Your task to perform on an android device: Show the shopping cart on target.com. Add panasonic triple a to the cart on target.com, then select checkout. Image 0: 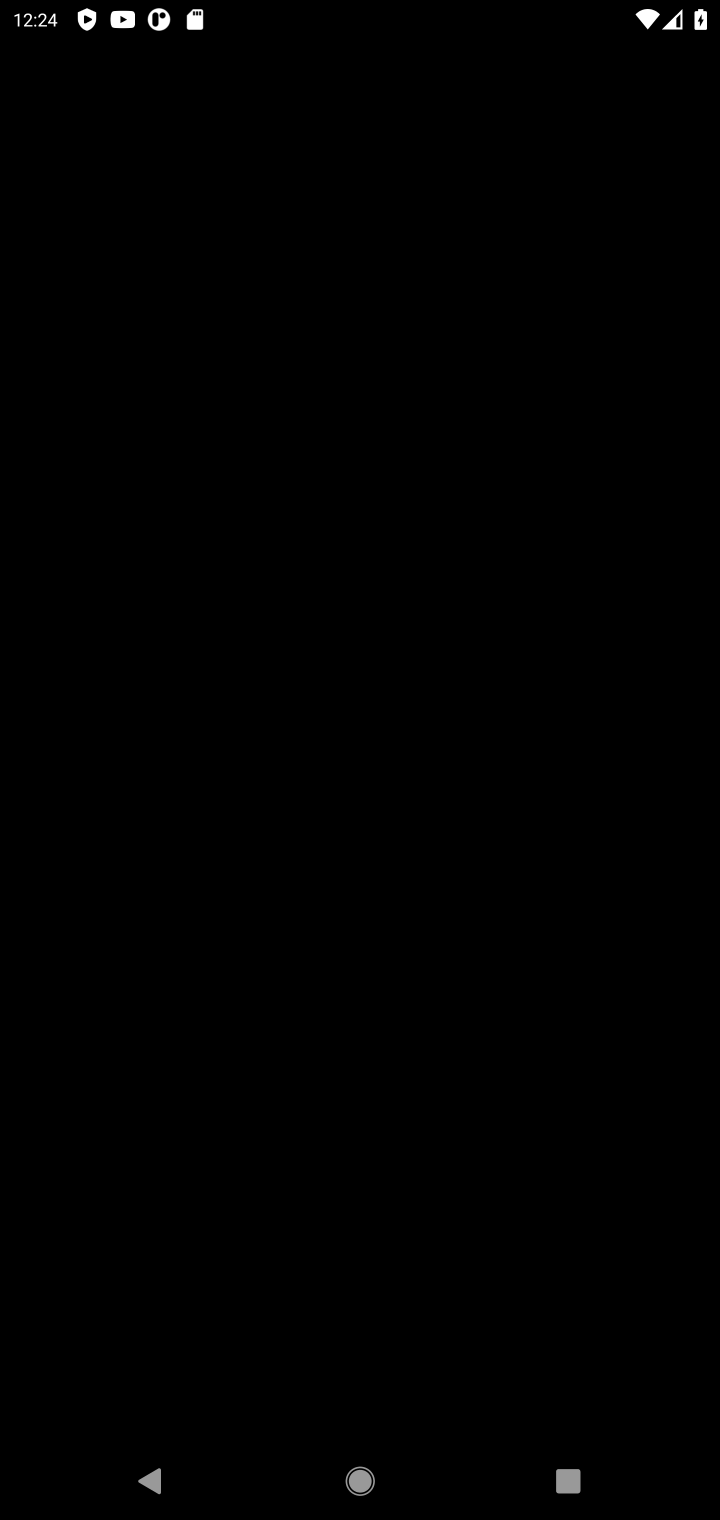
Step 0: press home button
Your task to perform on an android device: Show the shopping cart on target.com. Add panasonic triple a to the cart on target.com, then select checkout. Image 1: 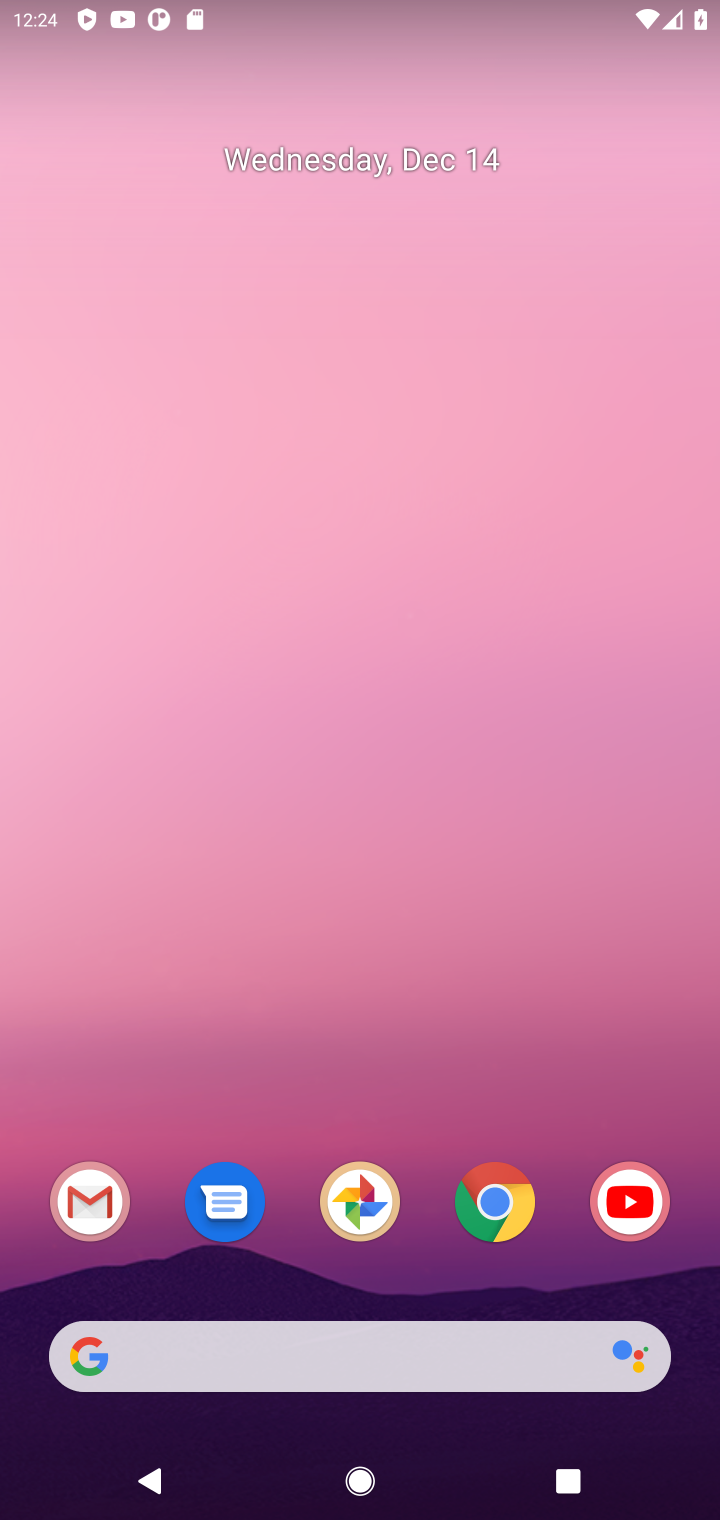
Step 1: click (482, 1202)
Your task to perform on an android device: Show the shopping cart on target.com. Add panasonic triple a to the cart on target.com, then select checkout. Image 2: 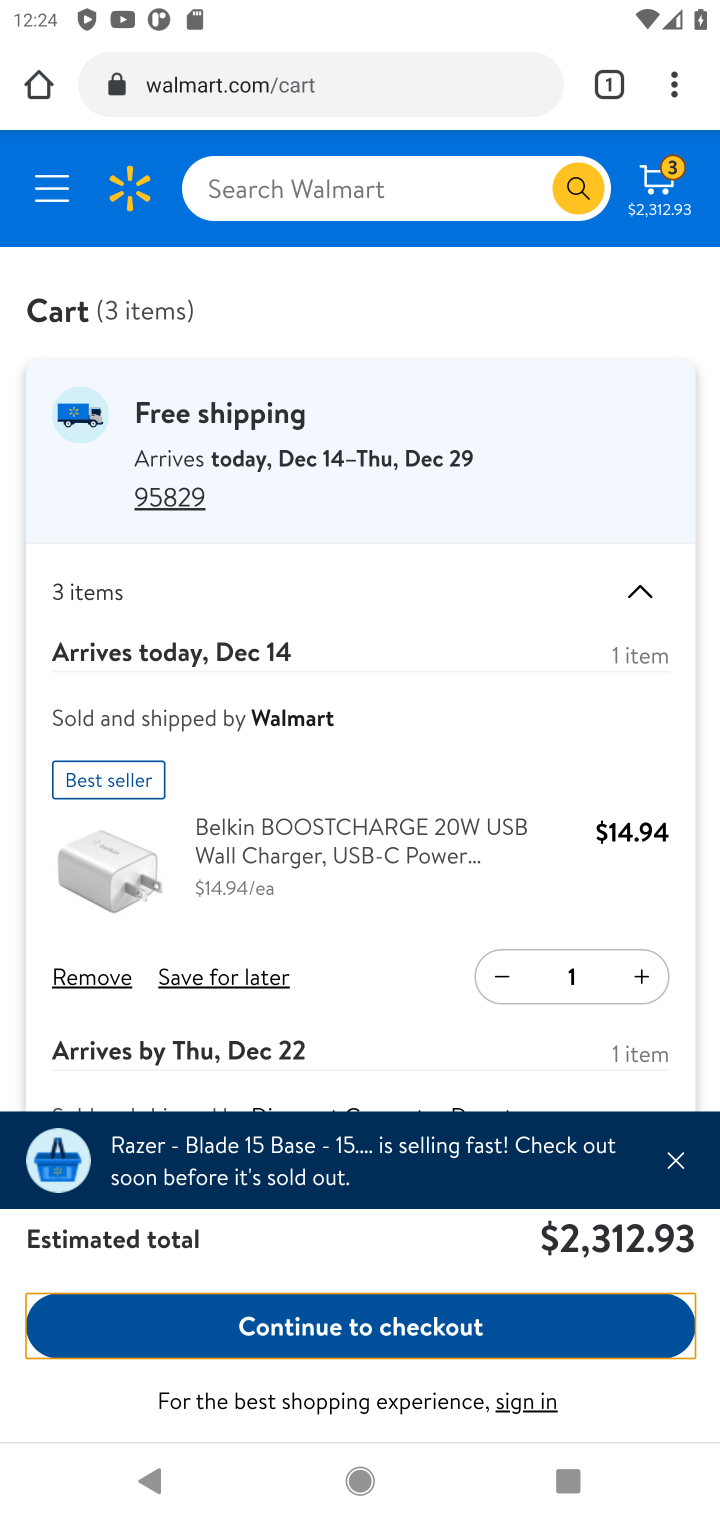
Step 2: click (327, 85)
Your task to perform on an android device: Show the shopping cart on target.com. Add panasonic triple a to the cart on target.com, then select checkout. Image 3: 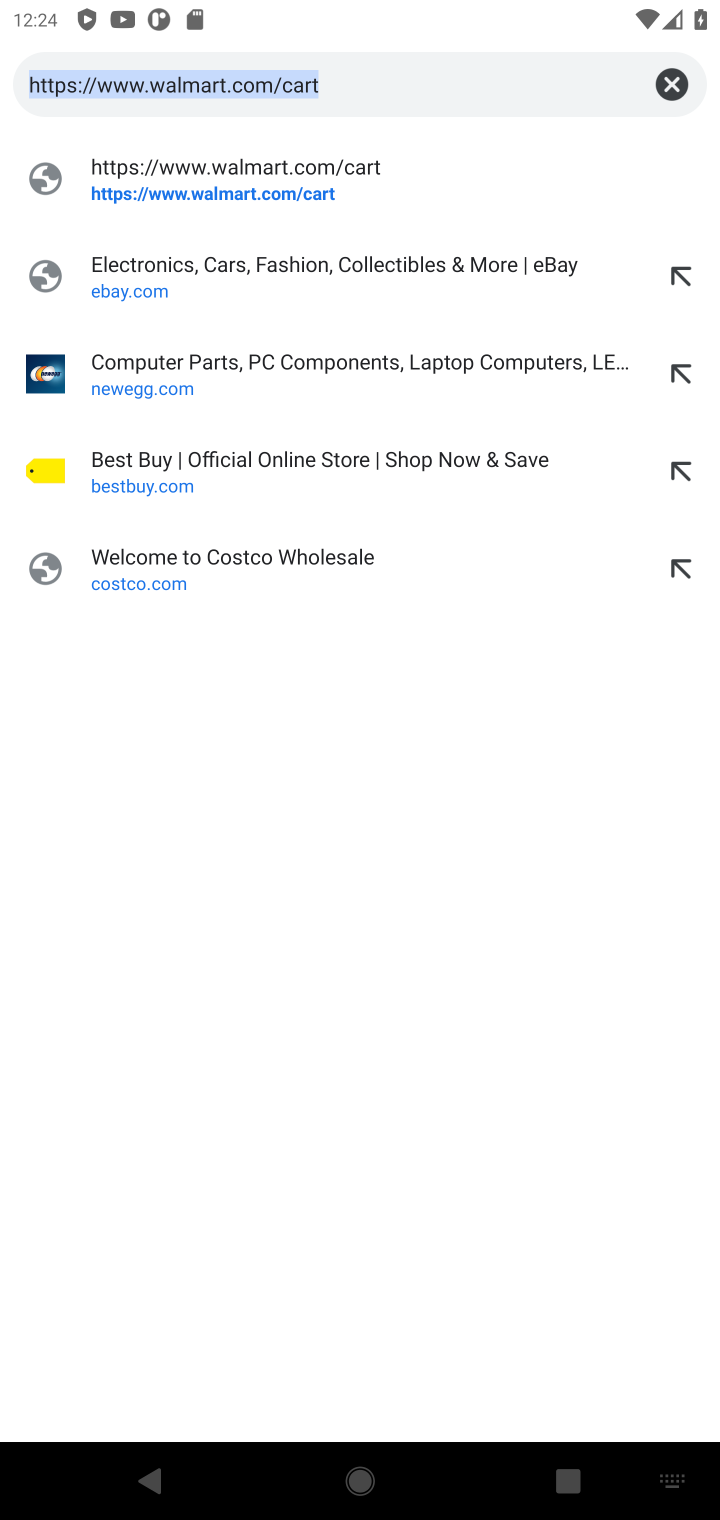
Step 3: type "target"
Your task to perform on an android device: Show the shopping cart on target.com. Add panasonic triple a to the cart on target.com, then select checkout. Image 4: 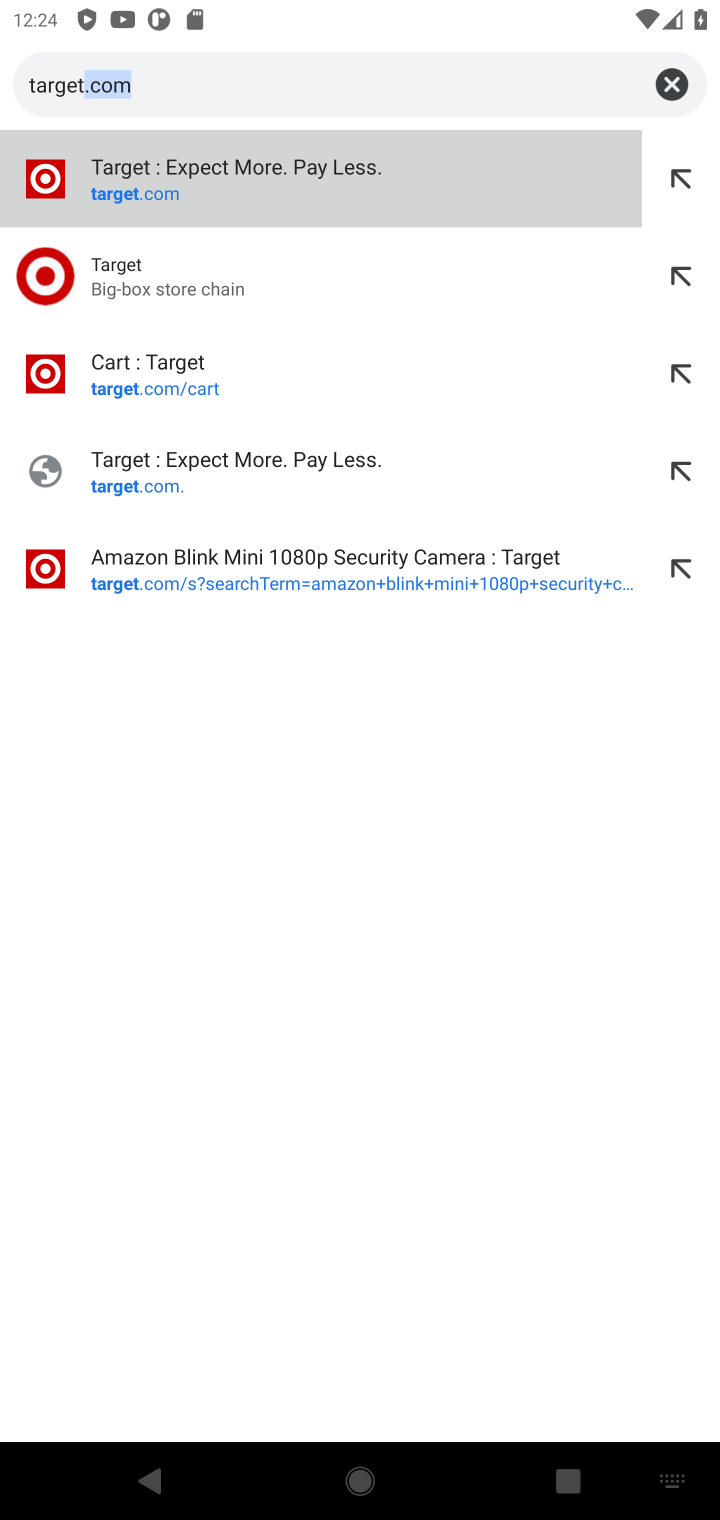
Step 4: click (246, 193)
Your task to perform on an android device: Show the shopping cart on target.com. Add panasonic triple a to the cart on target.com, then select checkout. Image 5: 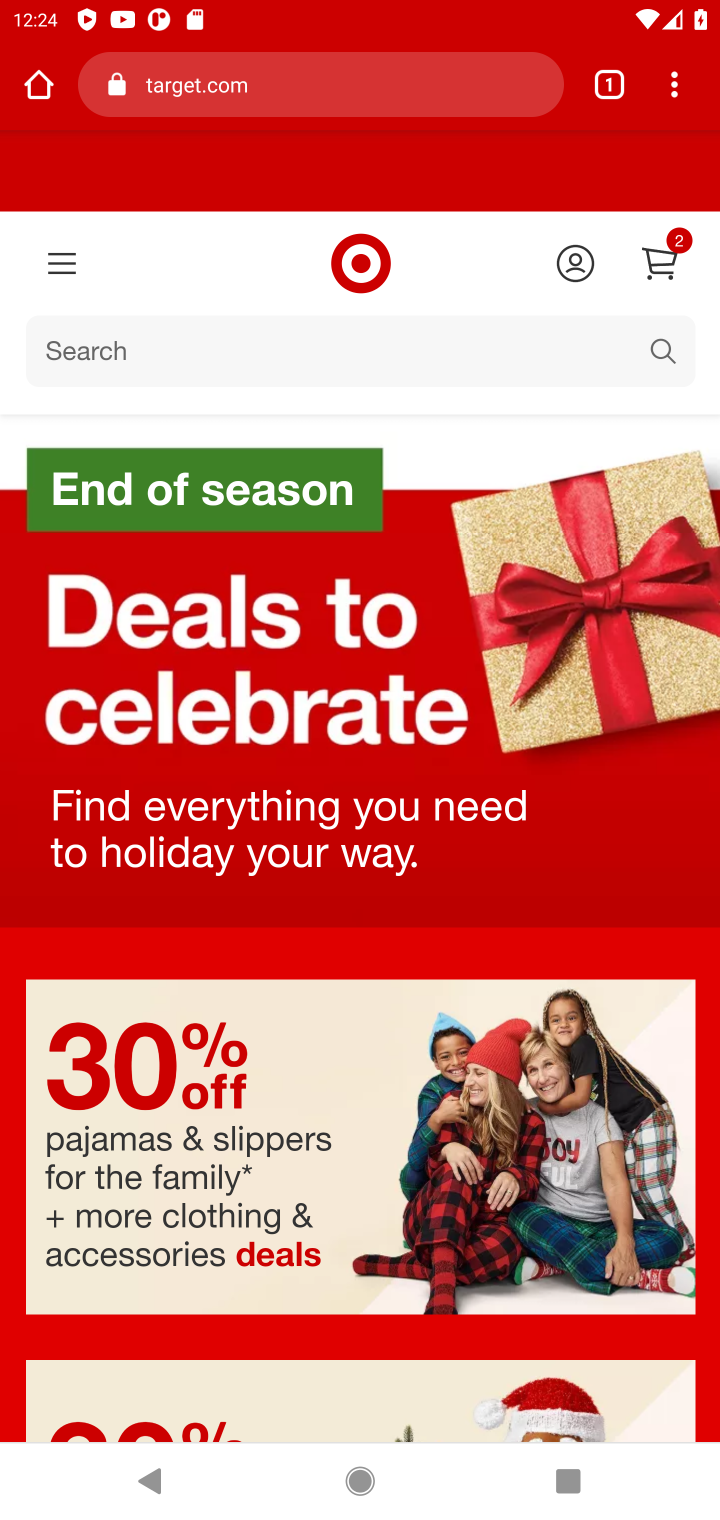
Step 5: click (237, 352)
Your task to perform on an android device: Show the shopping cart on target.com. Add panasonic triple a to the cart on target.com, then select checkout. Image 6: 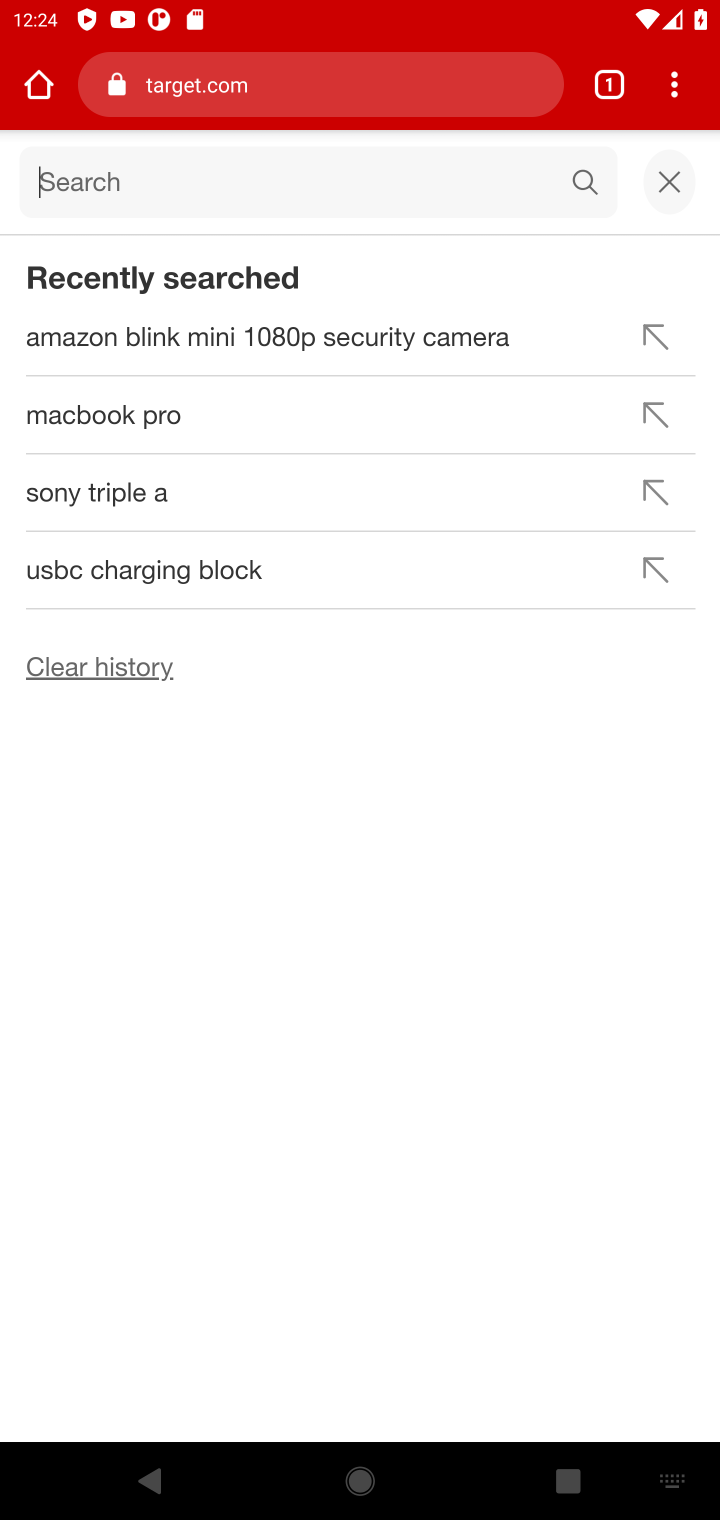
Step 6: type "panasonic triple a"
Your task to perform on an android device: Show the shopping cart on target.com. Add panasonic triple a to the cart on target.com, then select checkout. Image 7: 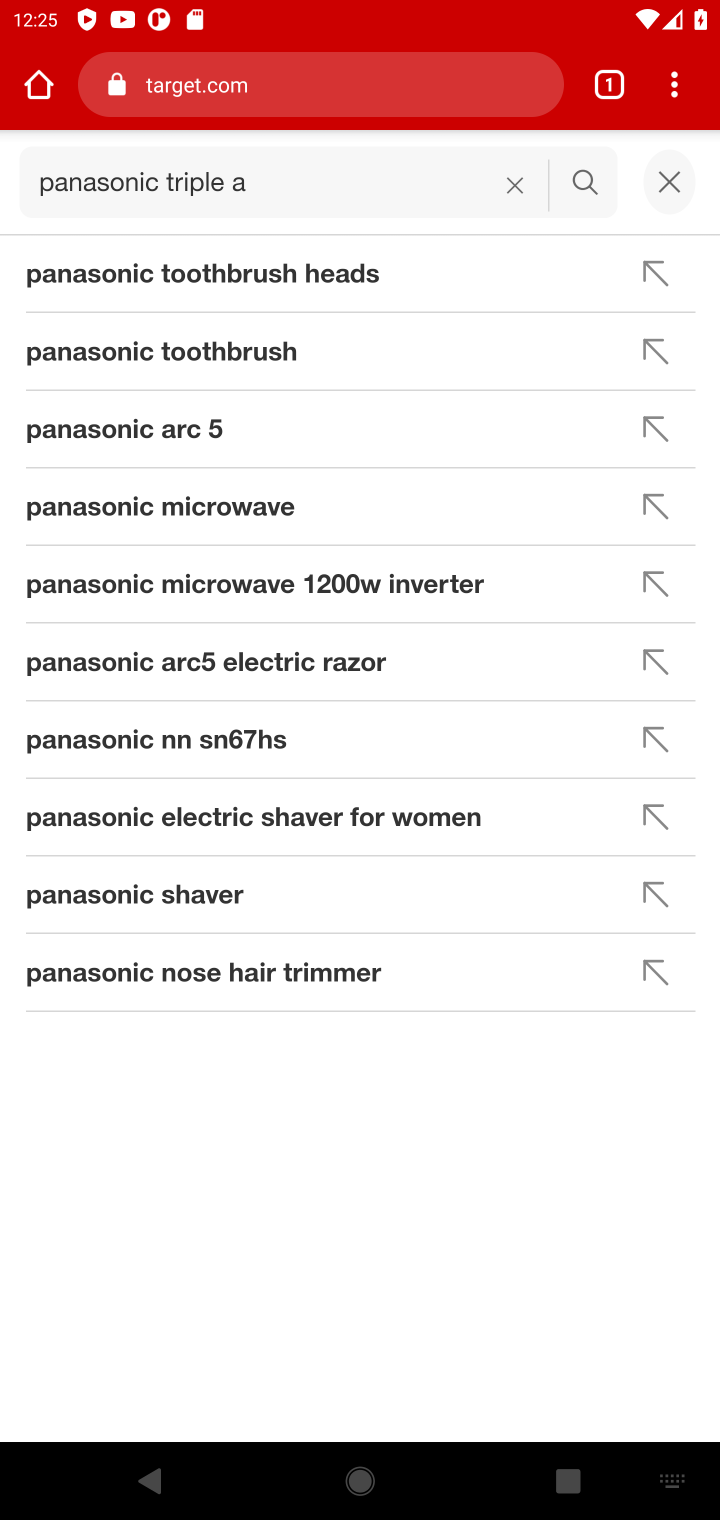
Step 7: click (583, 179)
Your task to perform on an android device: Show the shopping cart on target.com. Add panasonic triple a to the cart on target.com, then select checkout. Image 8: 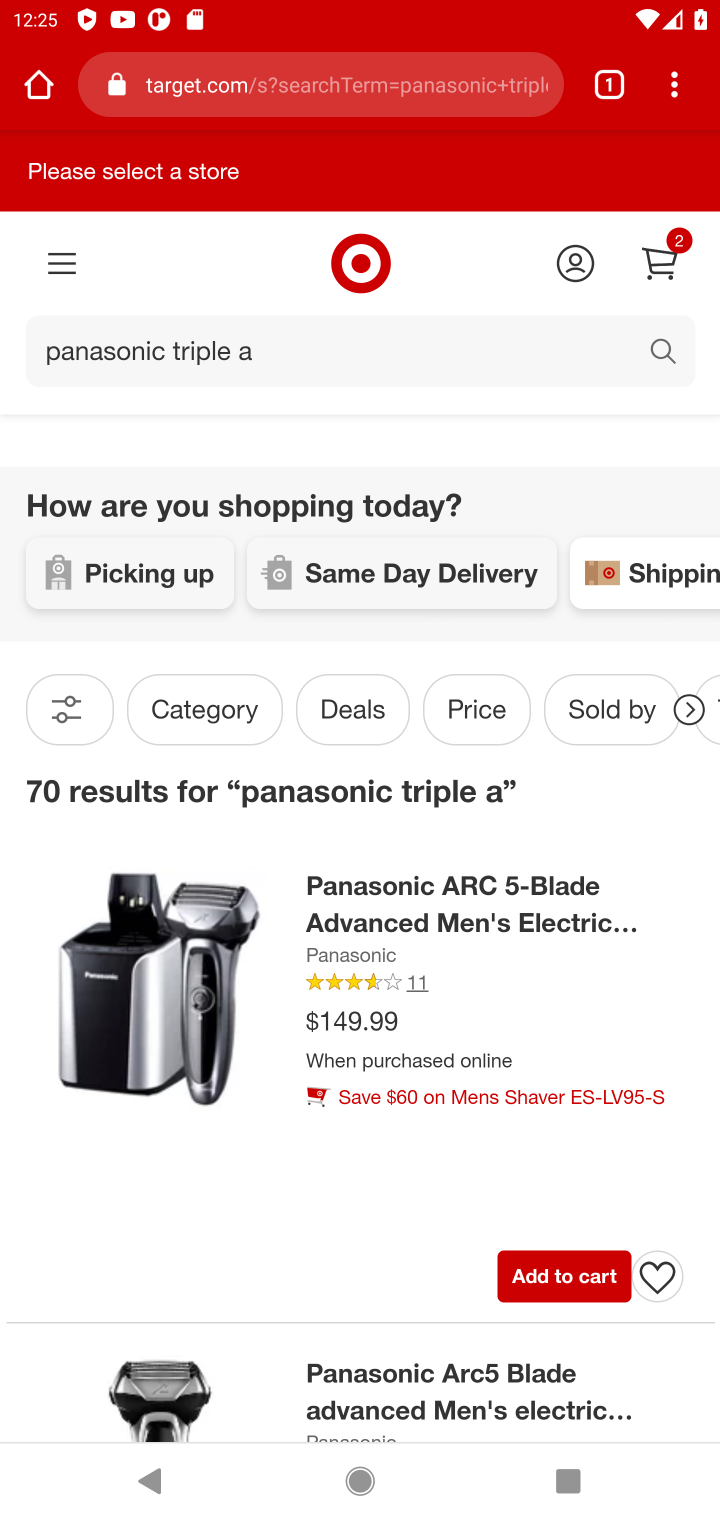
Step 8: click (555, 1269)
Your task to perform on an android device: Show the shopping cart on target.com. Add panasonic triple a to the cart on target.com, then select checkout. Image 9: 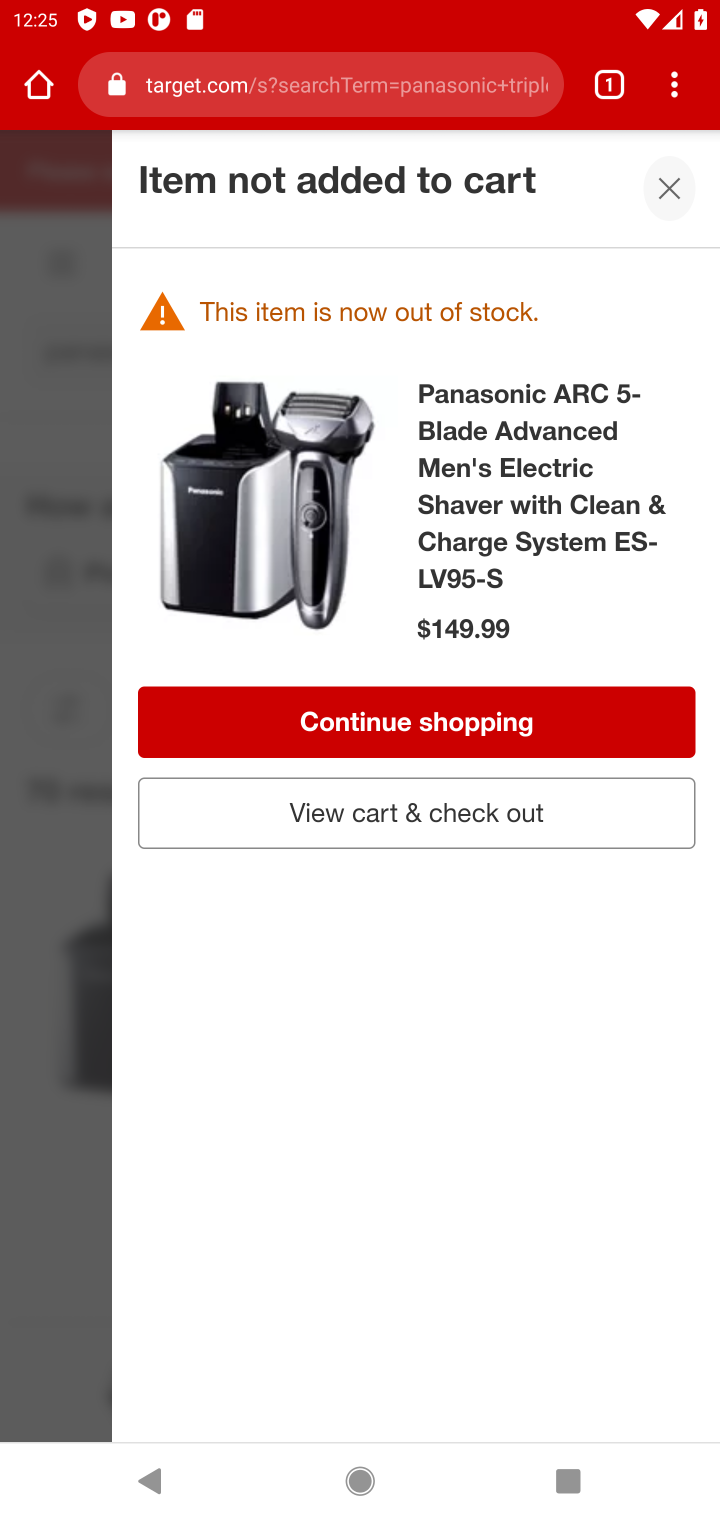
Step 9: click (373, 811)
Your task to perform on an android device: Show the shopping cart on target.com. Add panasonic triple a to the cart on target.com, then select checkout. Image 10: 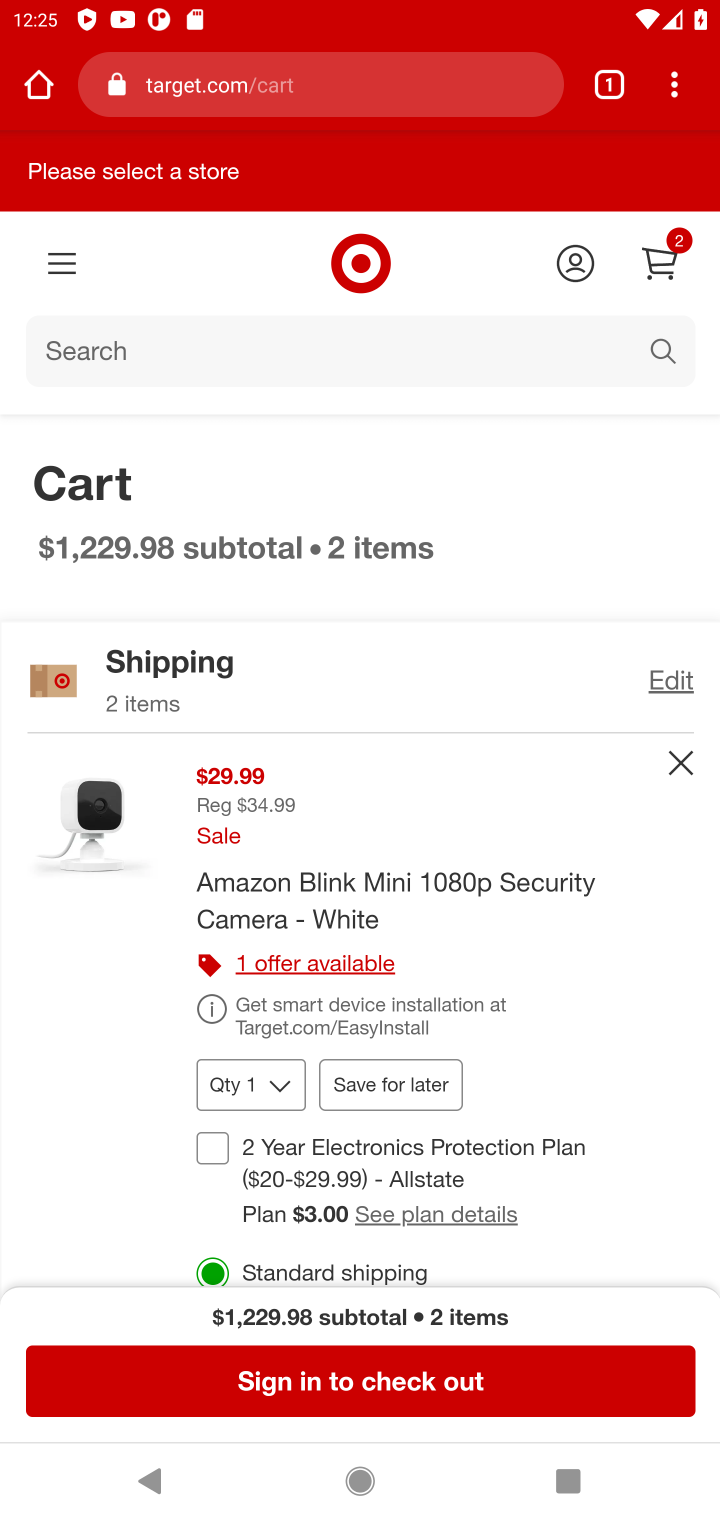
Step 10: click (466, 1365)
Your task to perform on an android device: Show the shopping cart on target.com. Add panasonic triple a to the cart on target.com, then select checkout. Image 11: 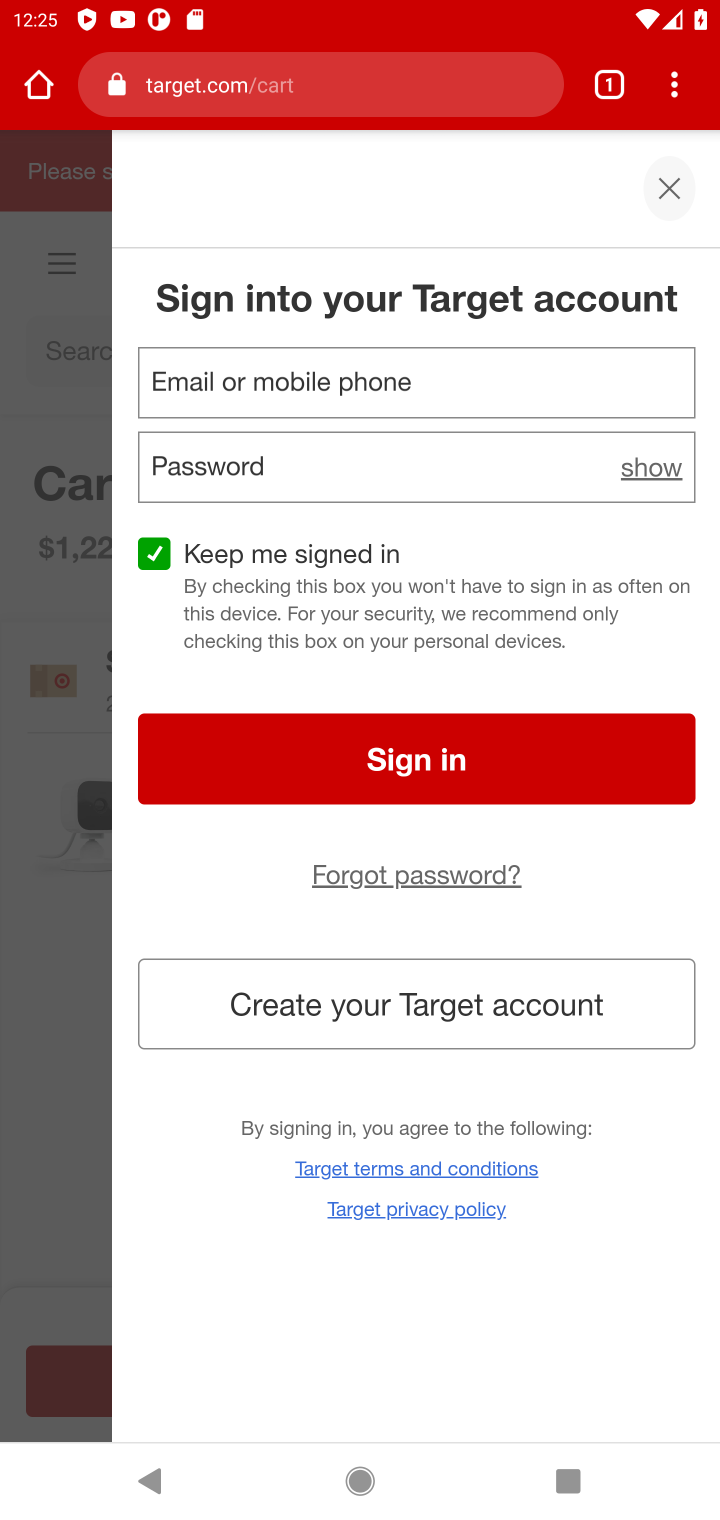
Step 11: click (662, 180)
Your task to perform on an android device: Show the shopping cart on target.com. Add panasonic triple a to the cart on target.com, then select checkout. Image 12: 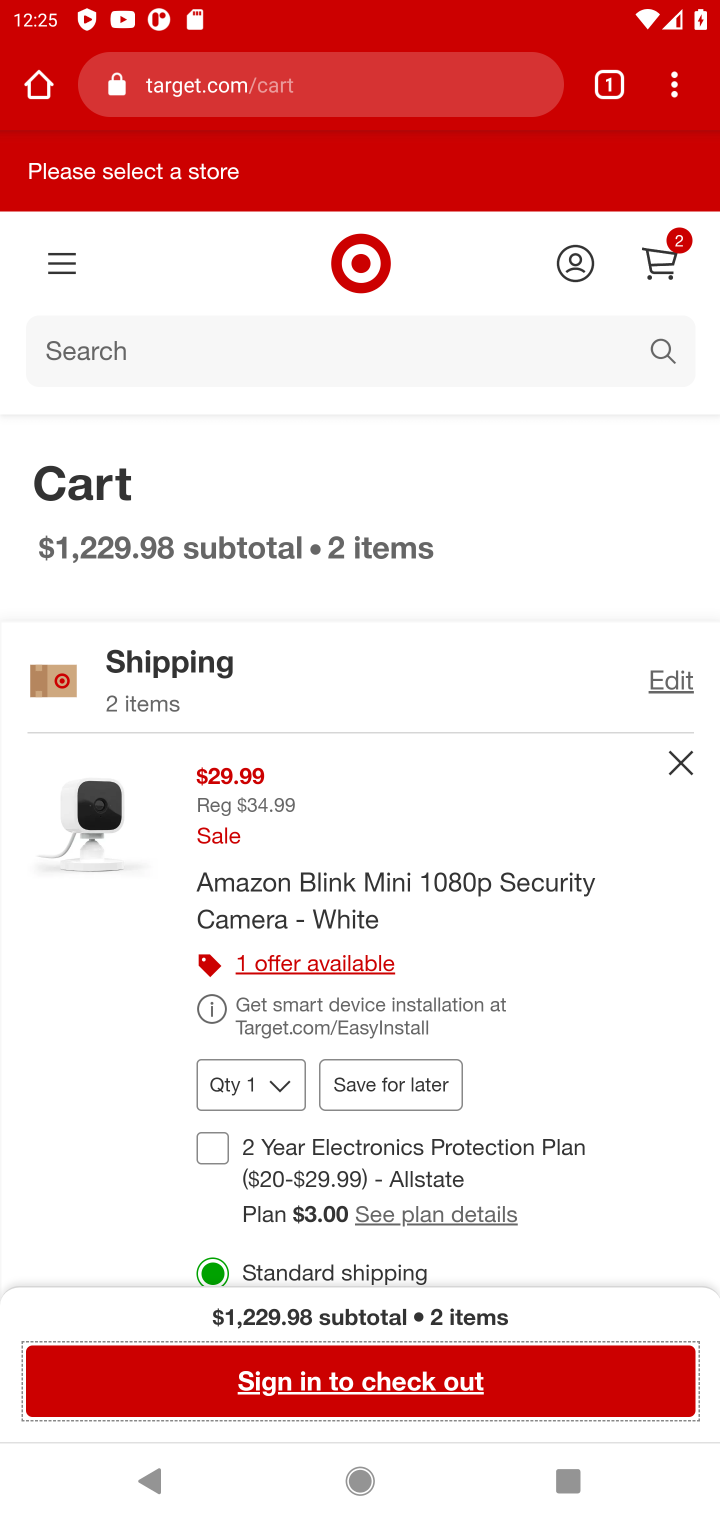
Step 12: click (666, 262)
Your task to perform on an android device: Show the shopping cart on target.com. Add panasonic triple a to the cart on target.com, then select checkout. Image 13: 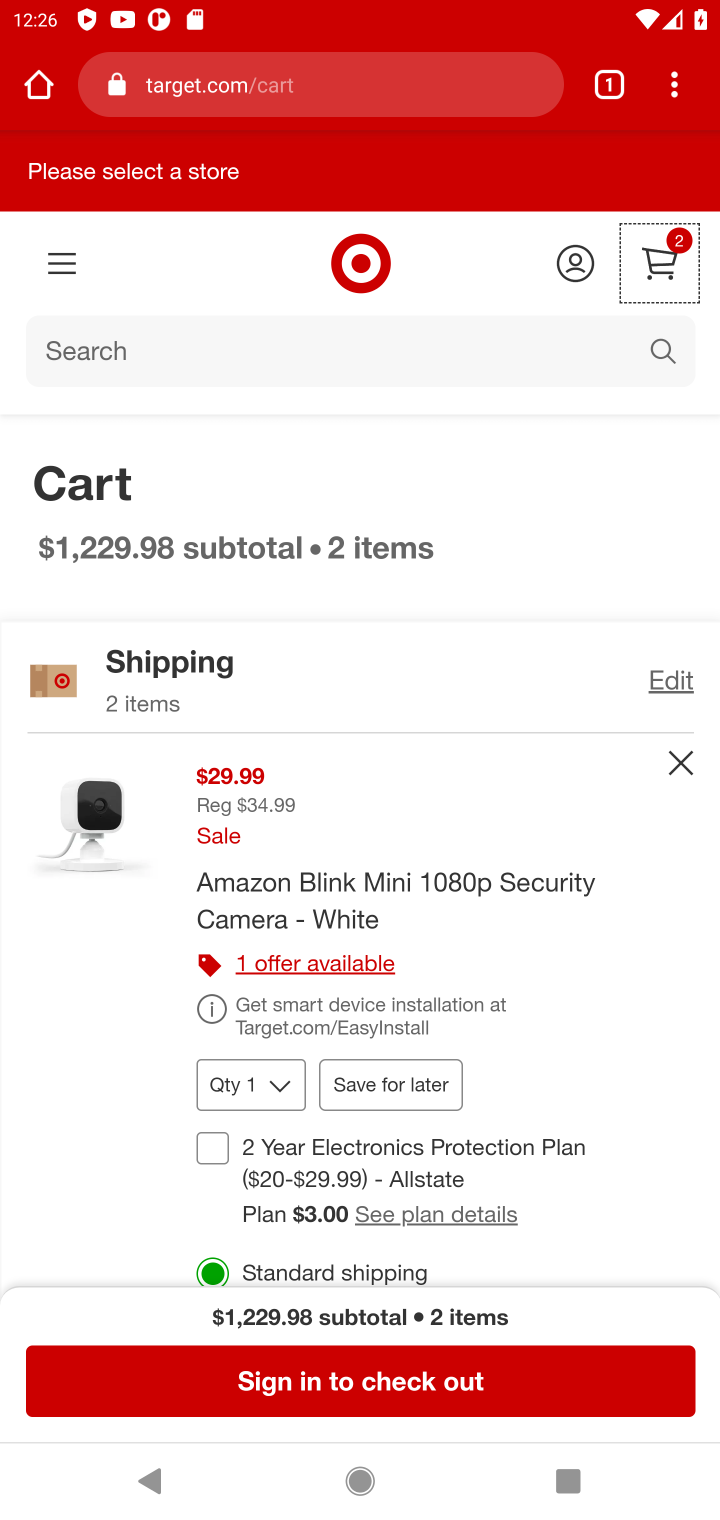
Step 13: click (358, 1379)
Your task to perform on an android device: Show the shopping cart on target.com. Add panasonic triple a to the cart on target.com, then select checkout. Image 14: 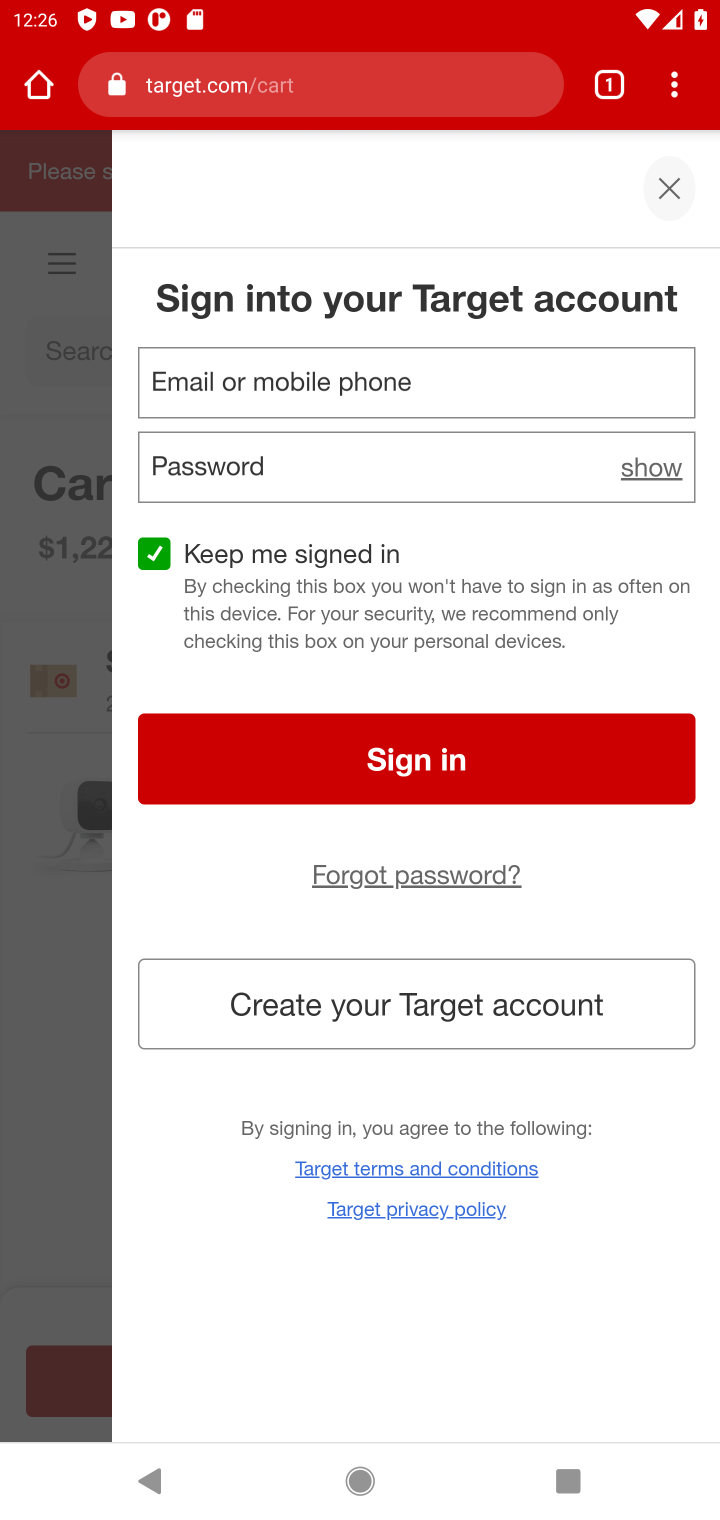
Step 14: task complete